Your task to perform on an android device: Go to Wikipedia Image 0: 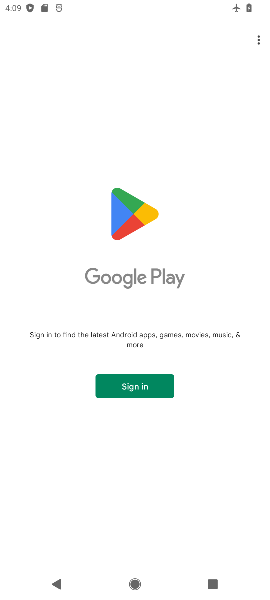
Step 0: press home button
Your task to perform on an android device: Go to Wikipedia Image 1: 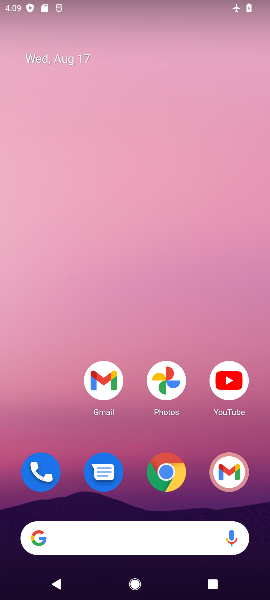
Step 1: click (159, 457)
Your task to perform on an android device: Go to Wikipedia Image 2: 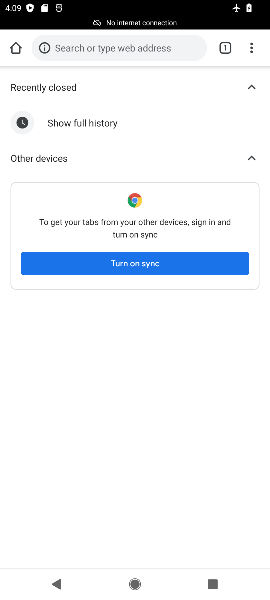
Step 2: click (221, 46)
Your task to perform on an android device: Go to Wikipedia Image 3: 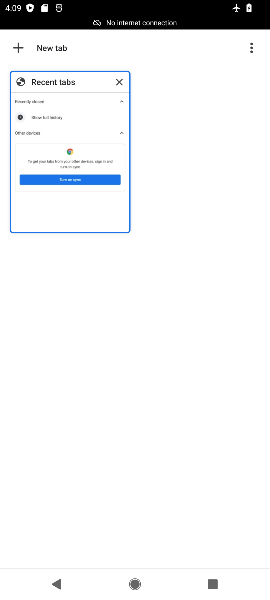
Step 3: click (21, 48)
Your task to perform on an android device: Go to Wikipedia Image 4: 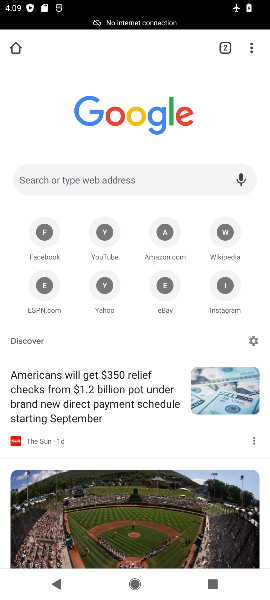
Step 4: click (225, 240)
Your task to perform on an android device: Go to Wikipedia Image 5: 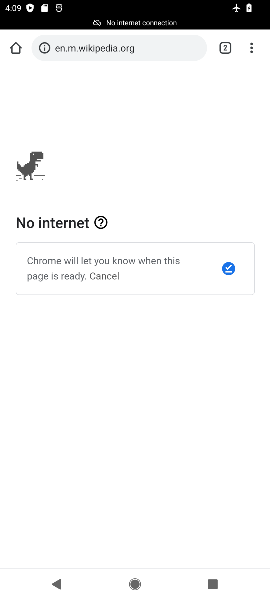
Step 5: task complete